Your task to perform on an android device: empty trash in the gmail app Image 0: 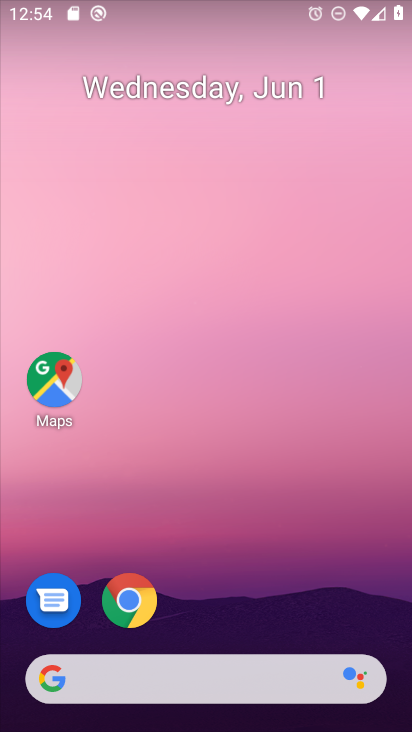
Step 0: press home button
Your task to perform on an android device: empty trash in the gmail app Image 1: 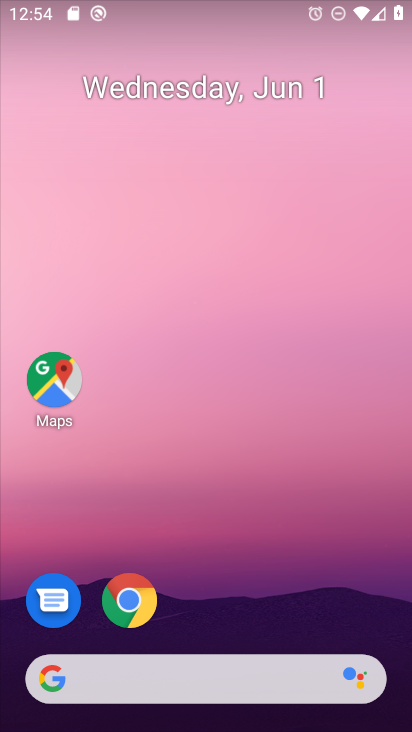
Step 1: drag from (223, 629) to (273, 144)
Your task to perform on an android device: empty trash in the gmail app Image 2: 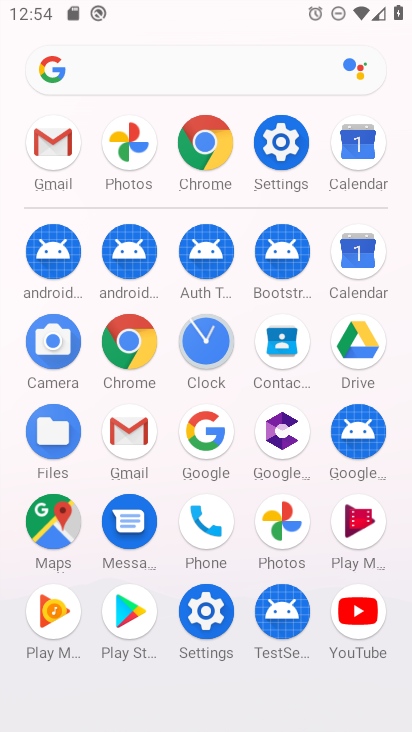
Step 2: click (122, 433)
Your task to perform on an android device: empty trash in the gmail app Image 3: 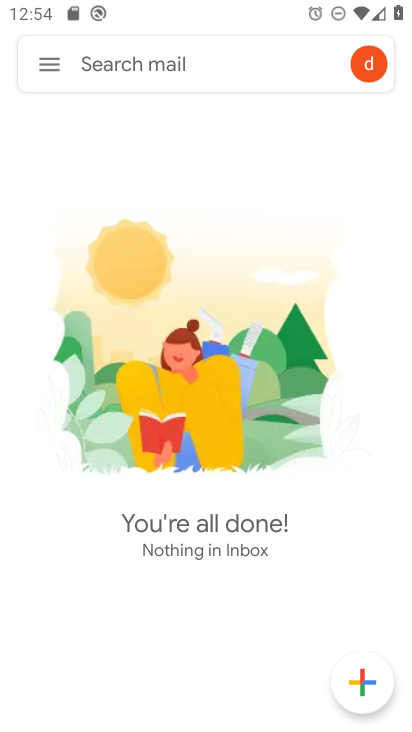
Step 3: click (51, 60)
Your task to perform on an android device: empty trash in the gmail app Image 4: 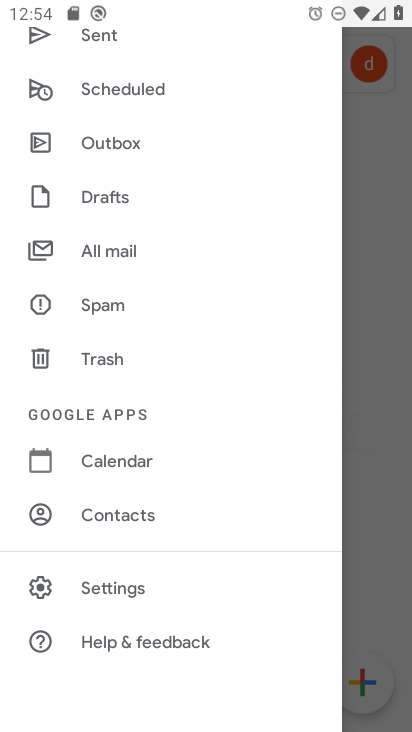
Step 4: click (122, 352)
Your task to perform on an android device: empty trash in the gmail app Image 5: 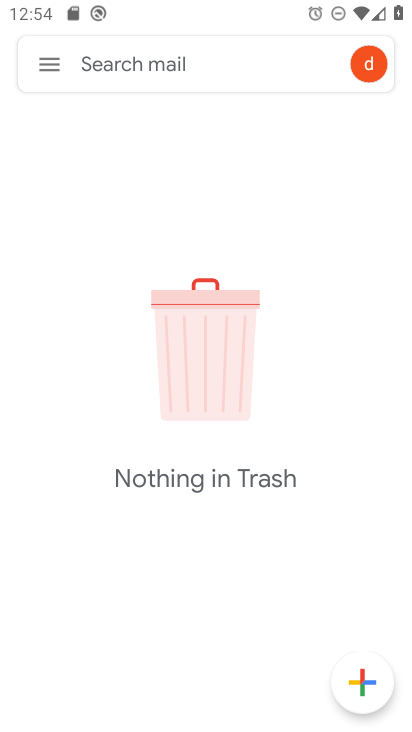
Step 5: task complete